Your task to perform on an android device: turn on wifi Image 0: 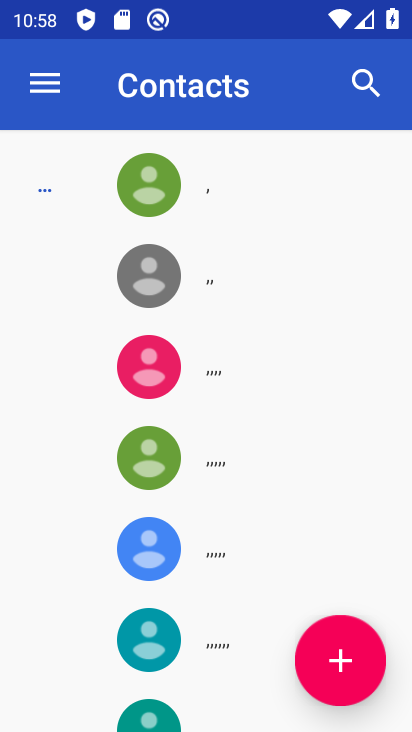
Step 0: press back button
Your task to perform on an android device: turn on wifi Image 1: 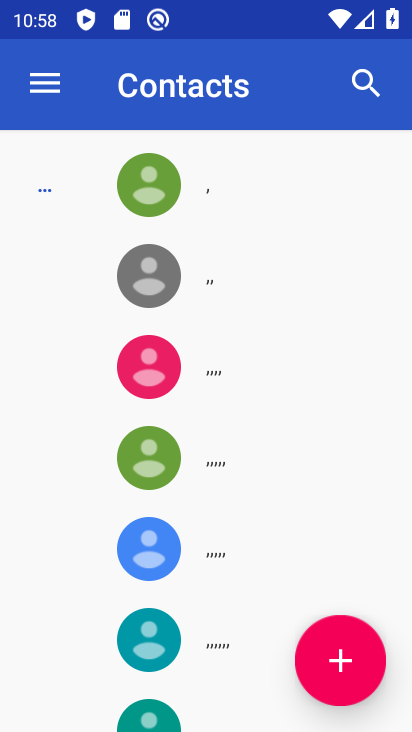
Step 1: press home button
Your task to perform on an android device: turn on wifi Image 2: 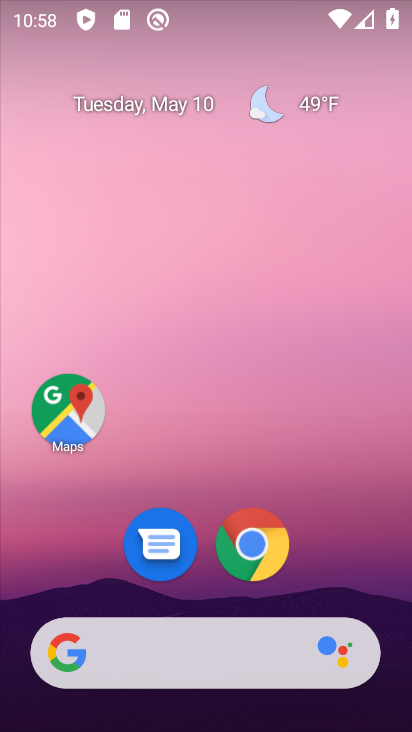
Step 2: drag from (172, 610) to (202, 93)
Your task to perform on an android device: turn on wifi Image 3: 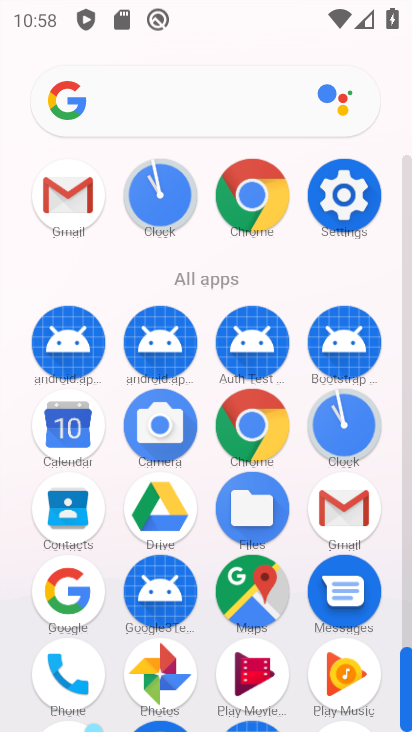
Step 3: drag from (119, 571) to (174, 356)
Your task to perform on an android device: turn on wifi Image 4: 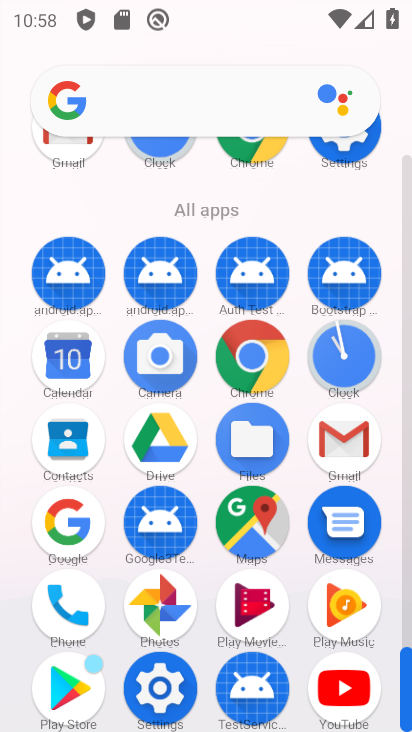
Step 4: click (166, 699)
Your task to perform on an android device: turn on wifi Image 5: 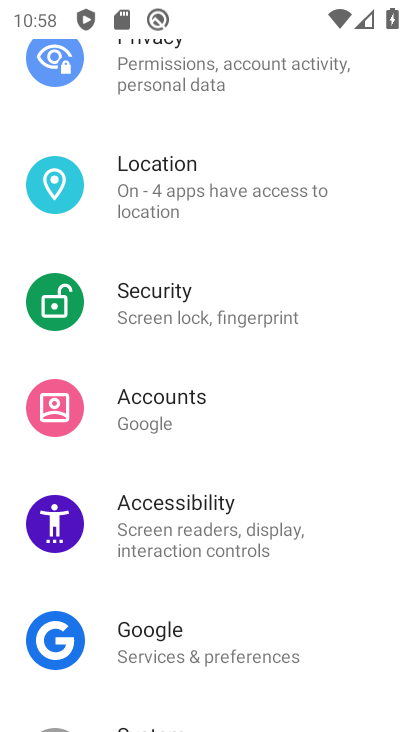
Step 5: drag from (207, 176) to (195, 592)
Your task to perform on an android device: turn on wifi Image 6: 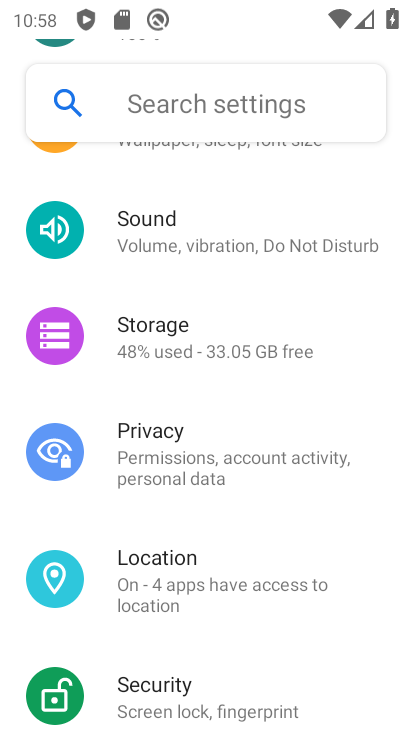
Step 6: drag from (197, 215) to (194, 729)
Your task to perform on an android device: turn on wifi Image 7: 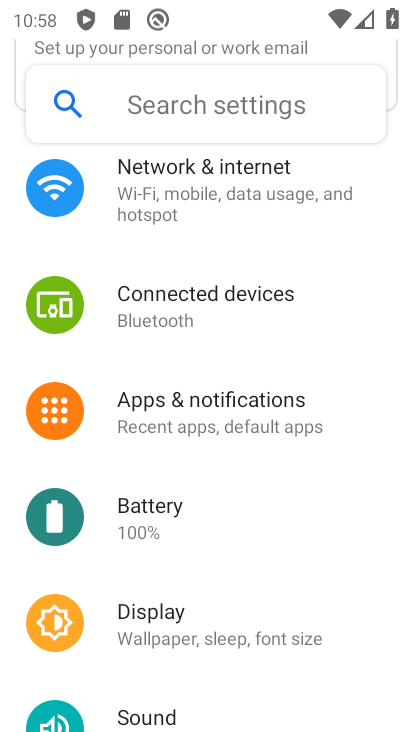
Step 7: click (194, 188)
Your task to perform on an android device: turn on wifi Image 8: 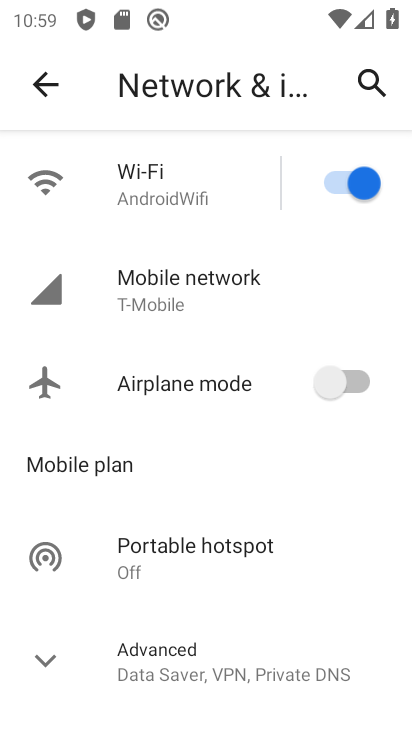
Step 8: task complete